Your task to perform on an android device: turn pop-ups on in chrome Image 0: 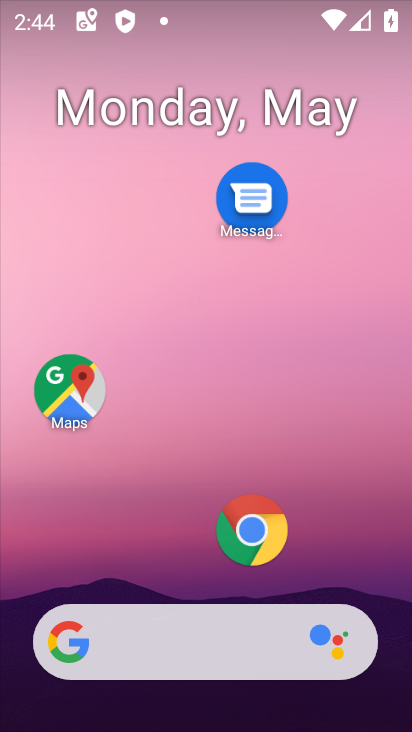
Step 0: click (261, 518)
Your task to perform on an android device: turn pop-ups on in chrome Image 1: 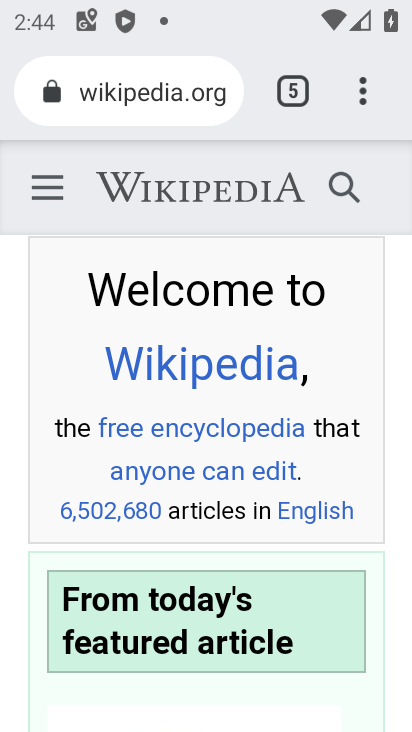
Step 1: drag from (358, 100) to (115, 549)
Your task to perform on an android device: turn pop-ups on in chrome Image 2: 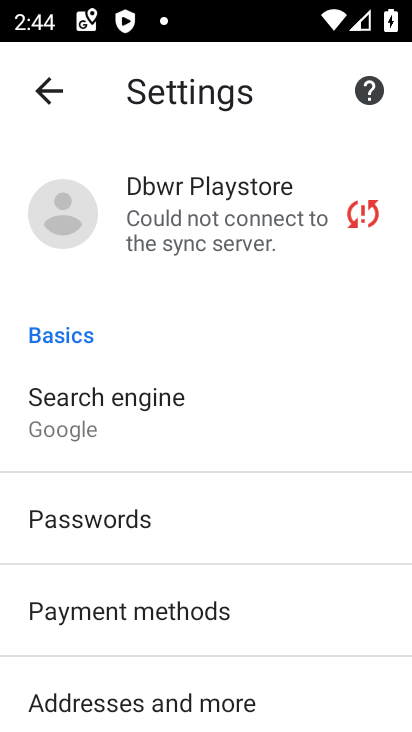
Step 2: drag from (138, 694) to (259, 212)
Your task to perform on an android device: turn pop-ups on in chrome Image 3: 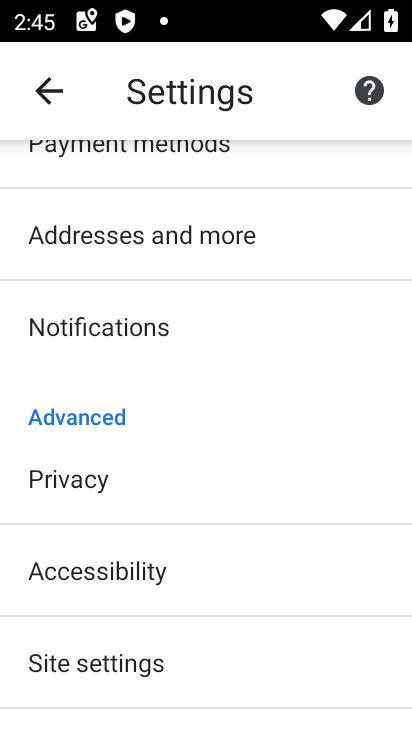
Step 3: click (123, 678)
Your task to perform on an android device: turn pop-ups on in chrome Image 4: 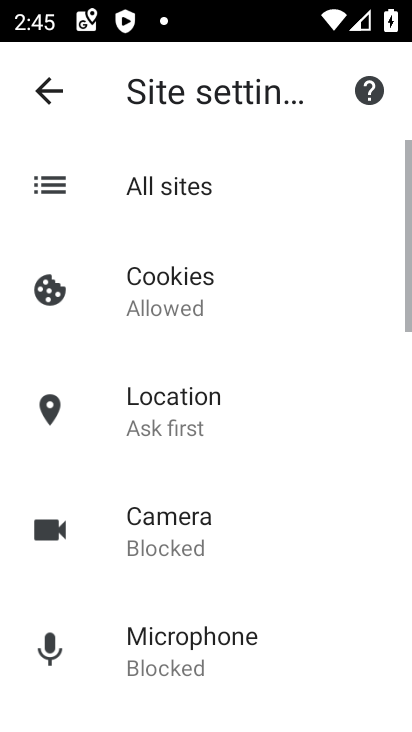
Step 4: drag from (152, 627) to (305, 96)
Your task to perform on an android device: turn pop-ups on in chrome Image 5: 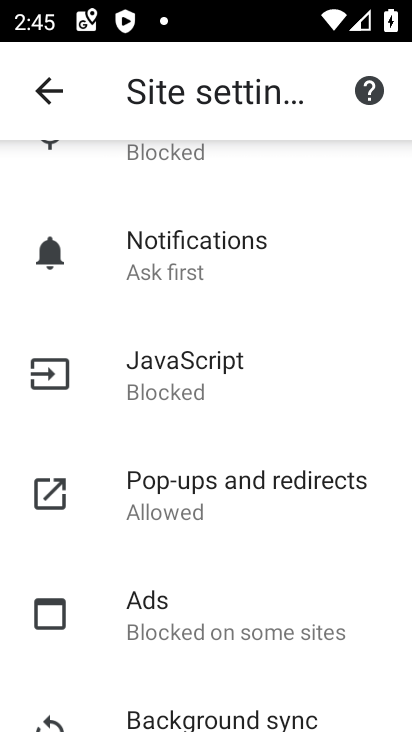
Step 5: click (215, 510)
Your task to perform on an android device: turn pop-ups on in chrome Image 6: 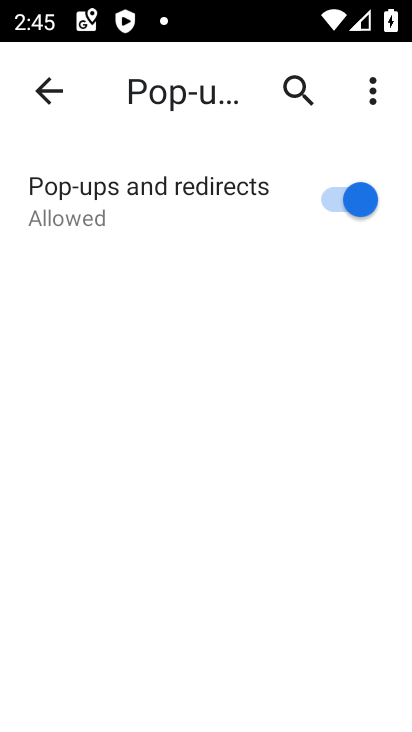
Step 6: task complete